Your task to perform on an android device: Open CNN.com Image 0: 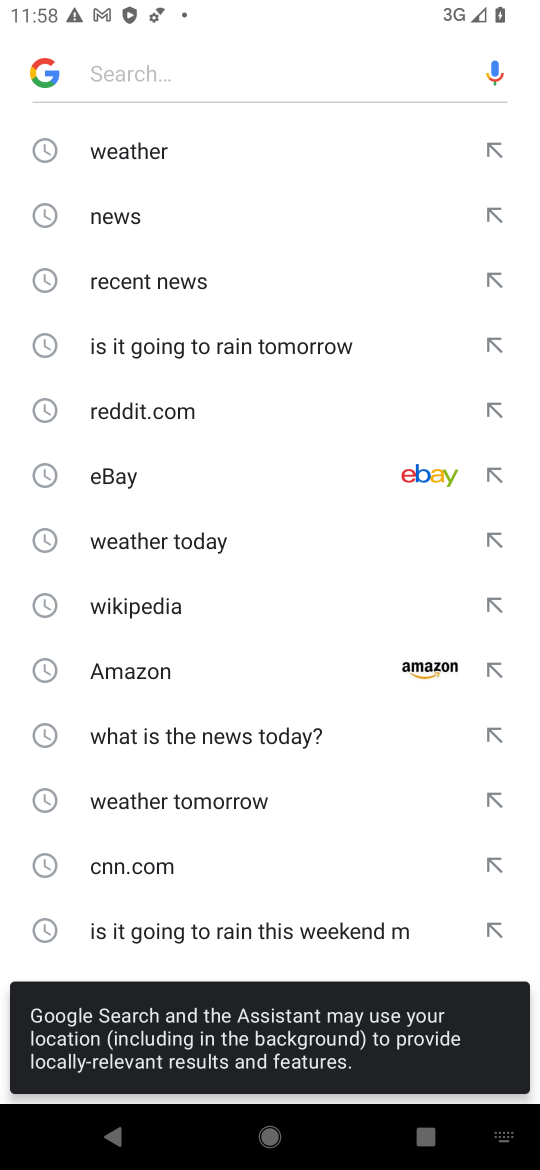
Step 0: press home button
Your task to perform on an android device: Open CNN.com Image 1: 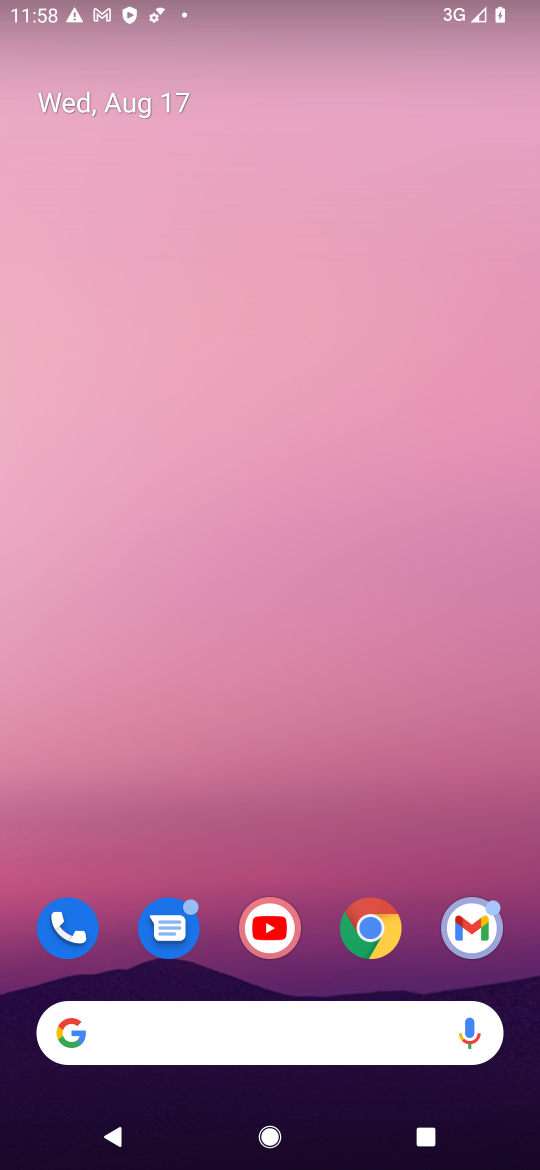
Step 1: click (358, 918)
Your task to perform on an android device: Open CNN.com Image 2: 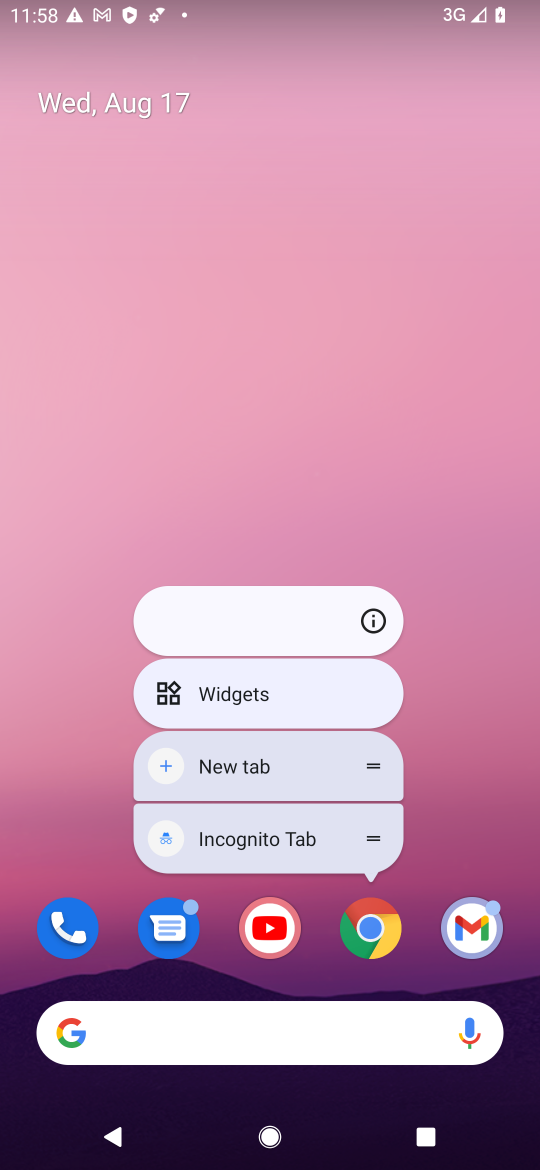
Step 2: click (368, 935)
Your task to perform on an android device: Open CNN.com Image 3: 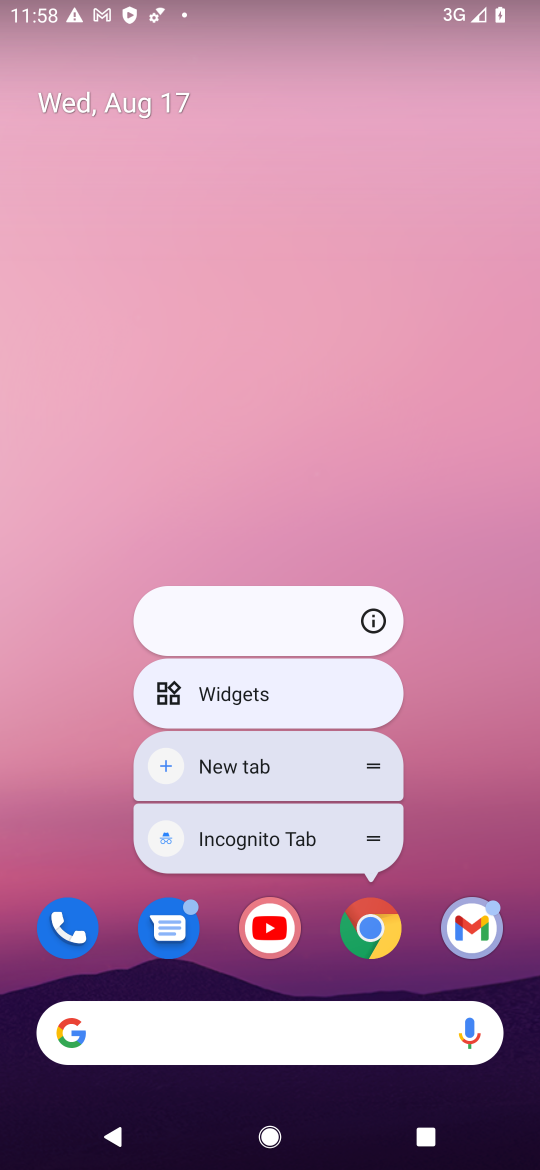
Step 3: click (353, 924)
Your task to perform on an android device: Open CNN.com Image 4: 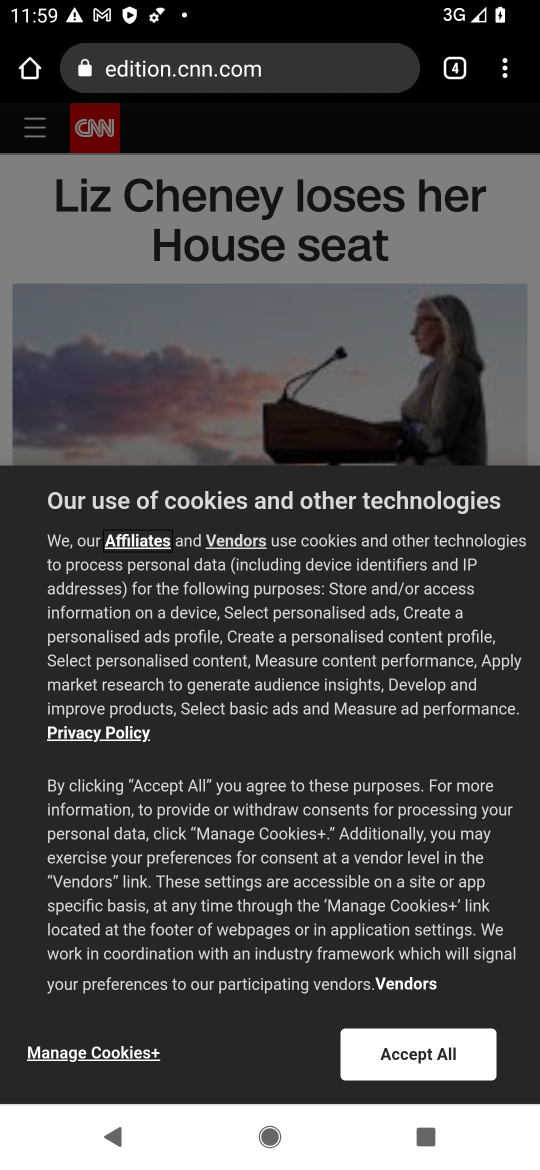
Step 4: task complete